Your task to perform on an android device: Do I have any events today? Image 0: 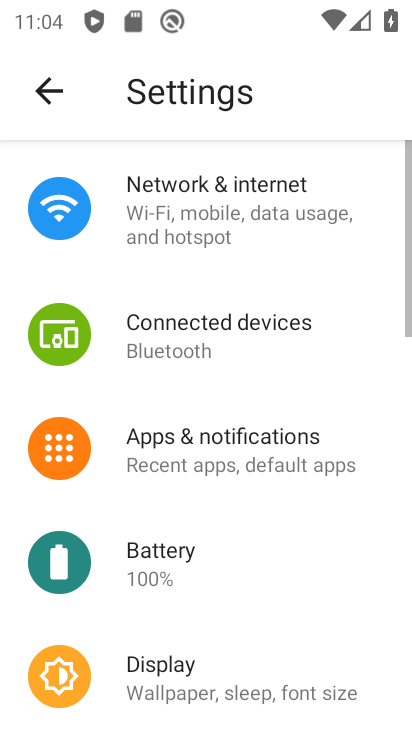
Step 0: press home button
Your task to perform on an android device: Do I have any events today? Image 1: 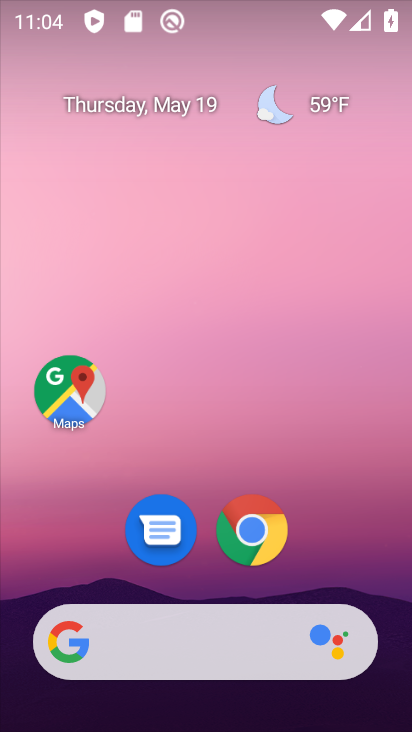
Step 1: drag from (349, 579) to (339, 93)
Your task to perform on an android device: Do I have any events today? Image 2: 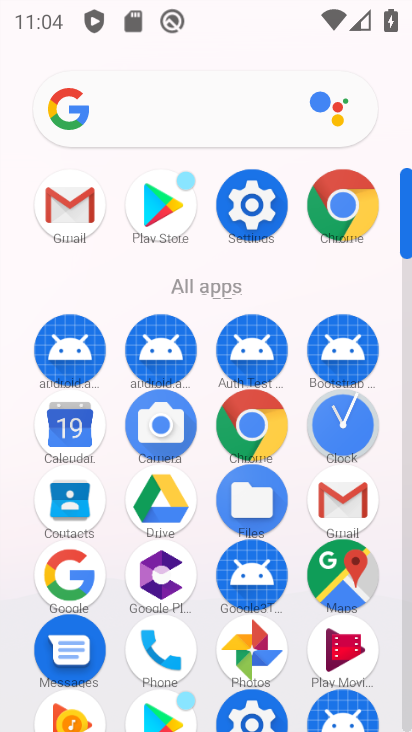
Step 2: drag from (299, 627) to (290, 296)
Your task to perform on an android device: Do I have any events today? Image 3: 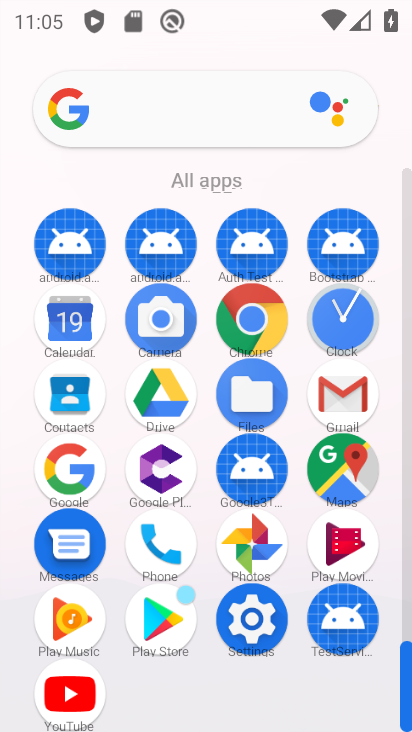
Step 3: click (77, 329)
Your task to perform on an android device: Do I have any events today? Image 4: 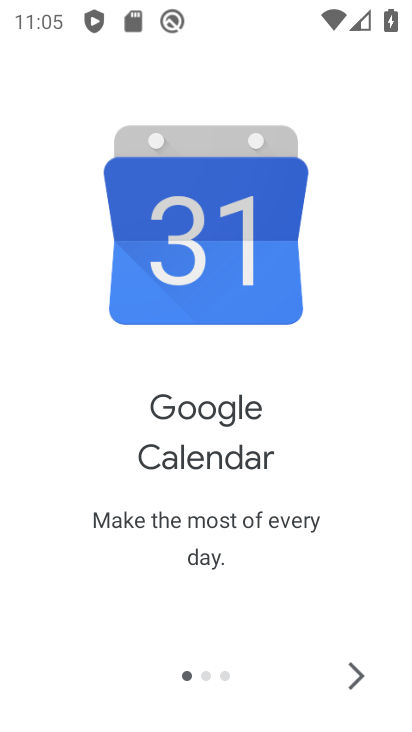
Step 4: click (342, 671)
Your task to perform on an android device: Do I have any events today? Image 5: 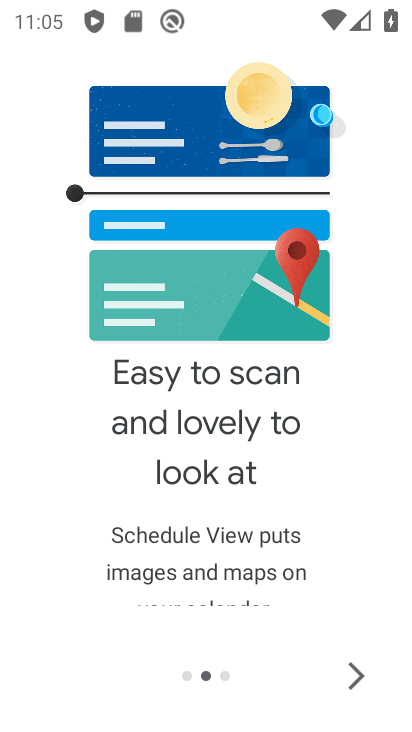
Step 5: click (342, 671)
Your task to perform on an android device: Do I have any events today? Image 6: 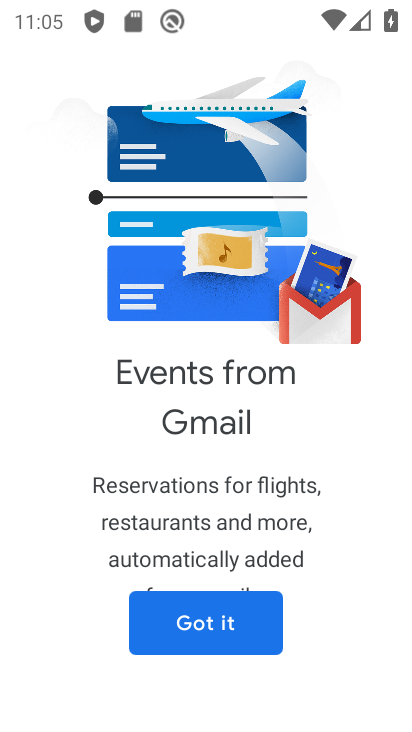
Step 6: click (238, 616)
Your task to perform on an android device: Do I have any events today? Image 7: 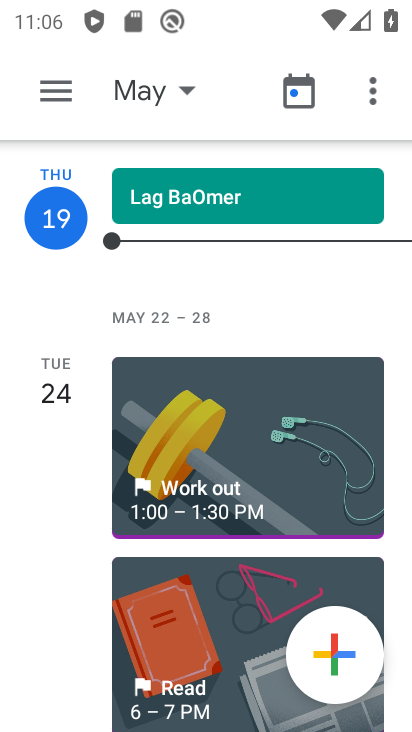
Step 7: task complete